Your task to perform on an android device: Open calendar and show me the second week of next month Image 0: 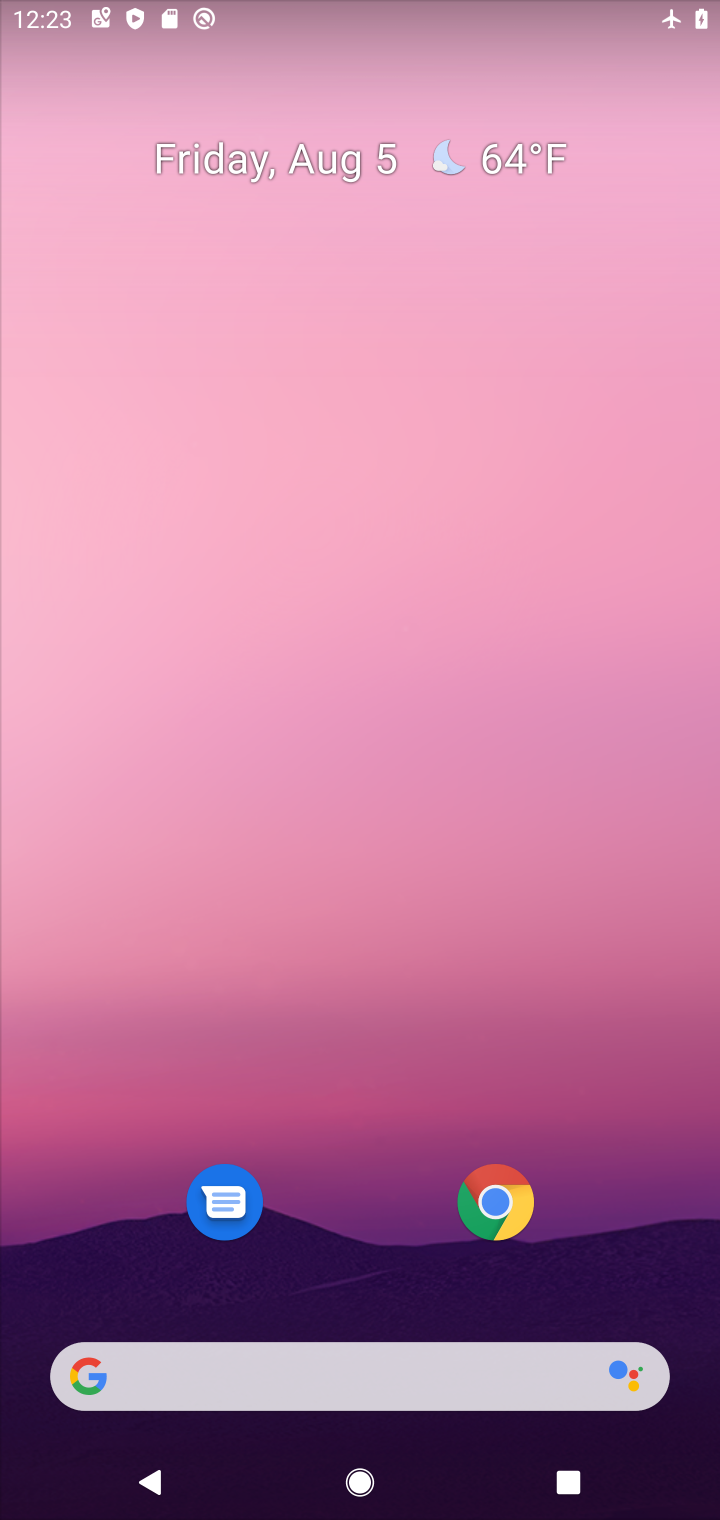
Step 0: drag from (299, 1219) to (322, 162)
Your task to perform on an android device: Open calendar and show me the second week of next month Image 1: 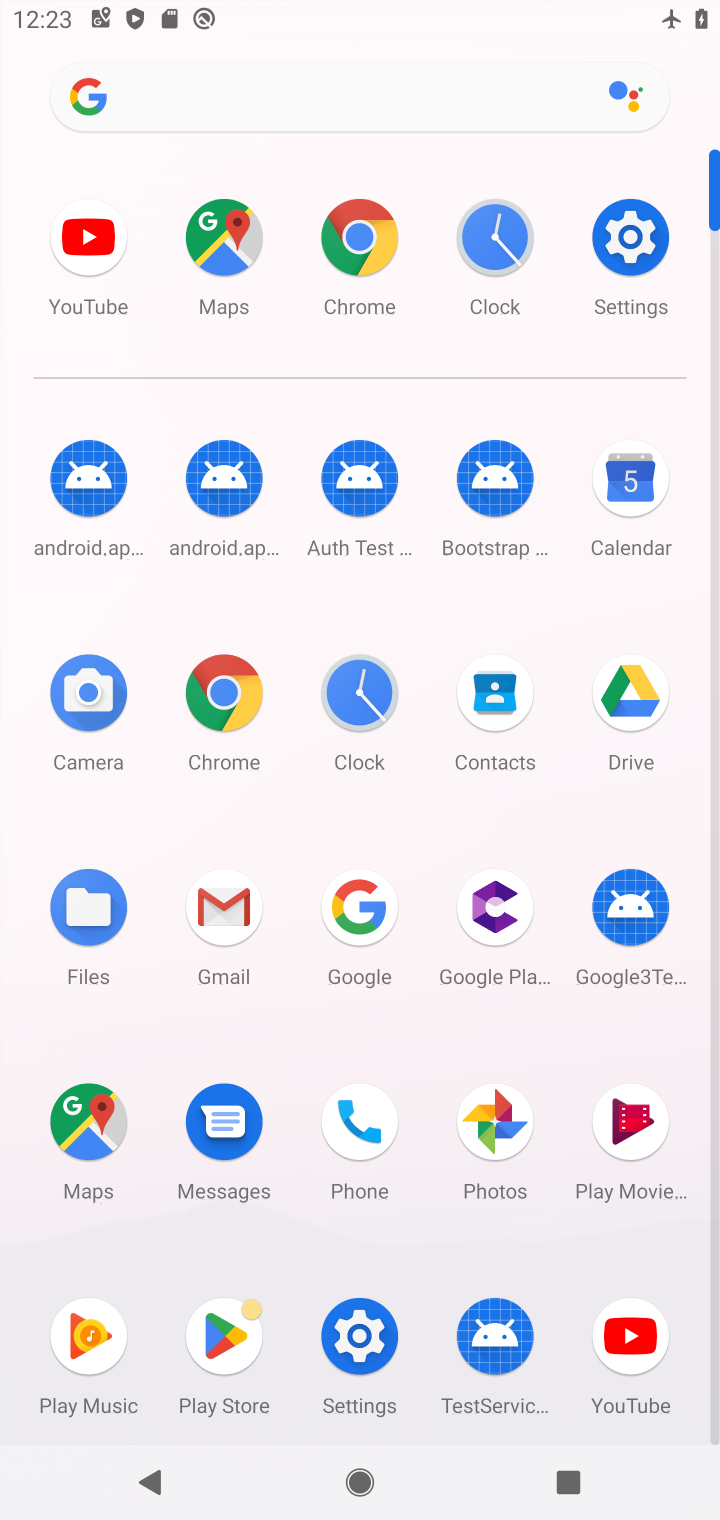
Step 1: click (625, 498)
Your task to perform on an android device: Open calendar and show me the second week of next month Image 2: 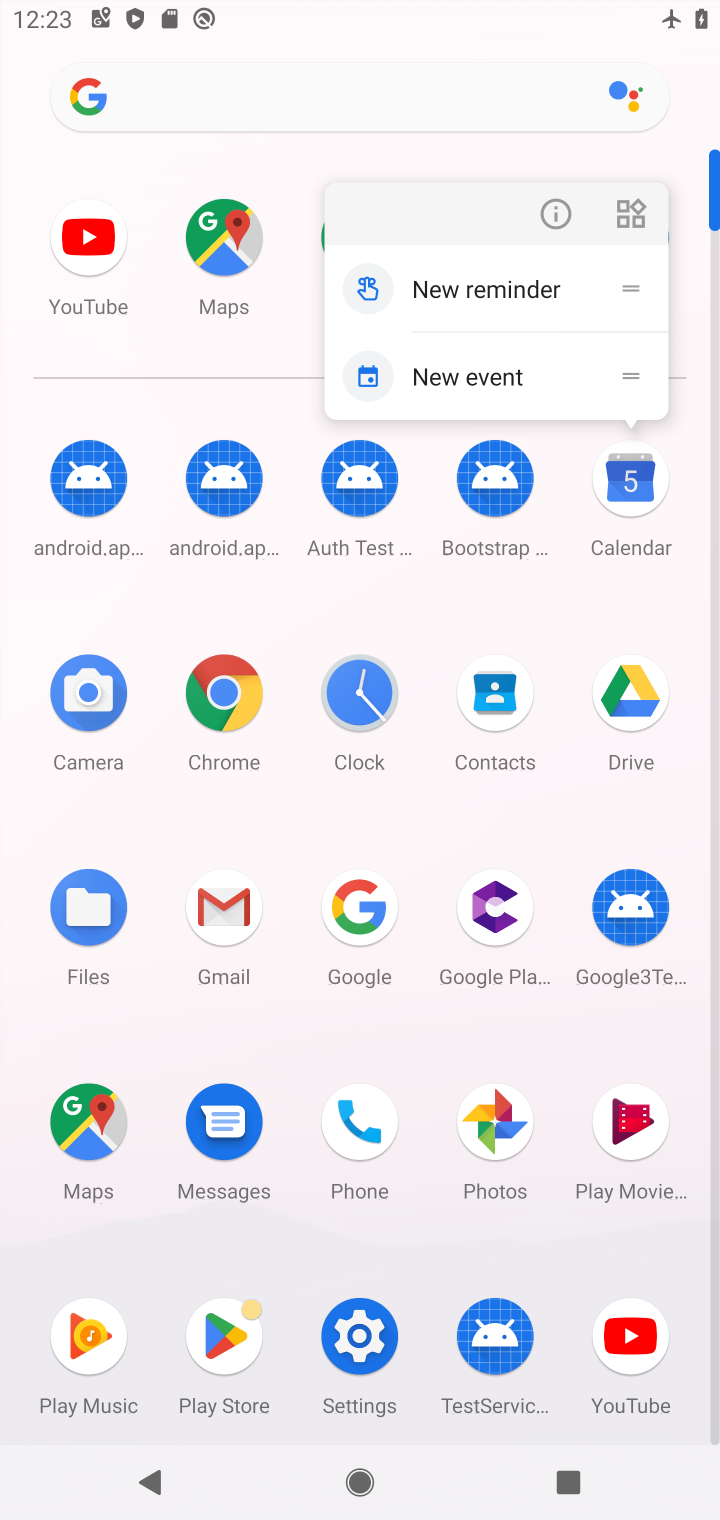
Step 2: click (631, 485)
Your task to perform on an android device: Open calendar and show me the second week of next month Image 3: 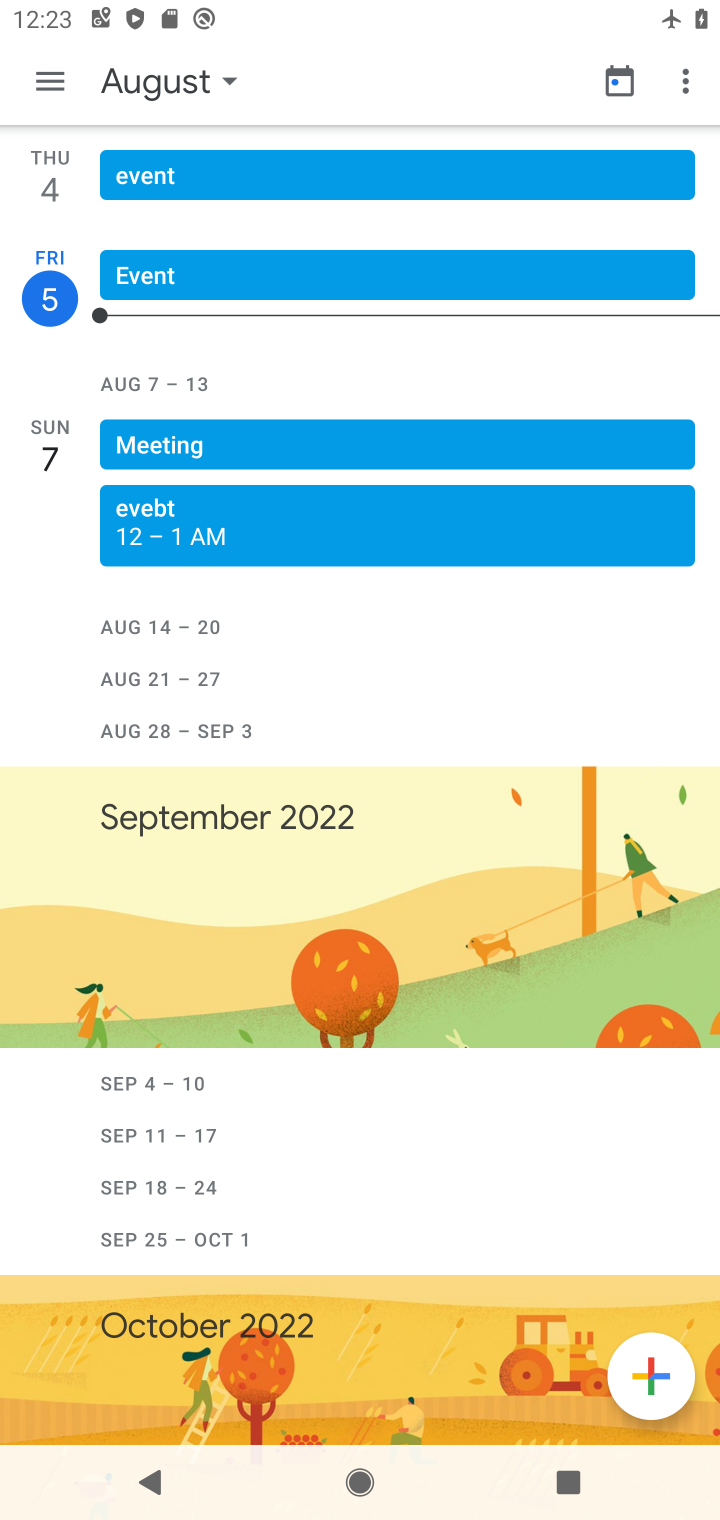
Step 3: click (176, 76)
Your task to perform on an android device: Open calendar and show me the second week of next month Image 4: 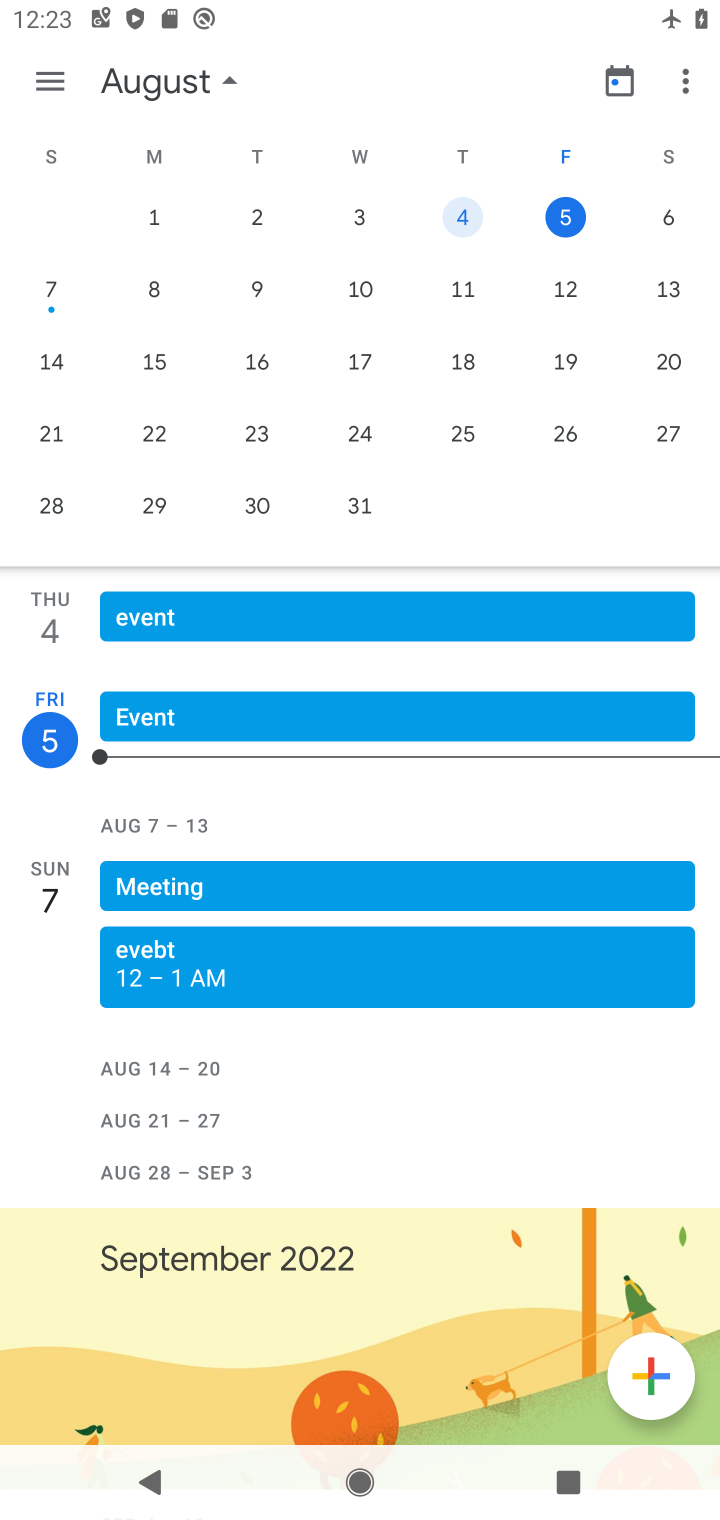
Step 4: drag from (672, 350) to (37, 367)
Your task to perform on an android device: Open calendar and show me the second week of next month Image 5: 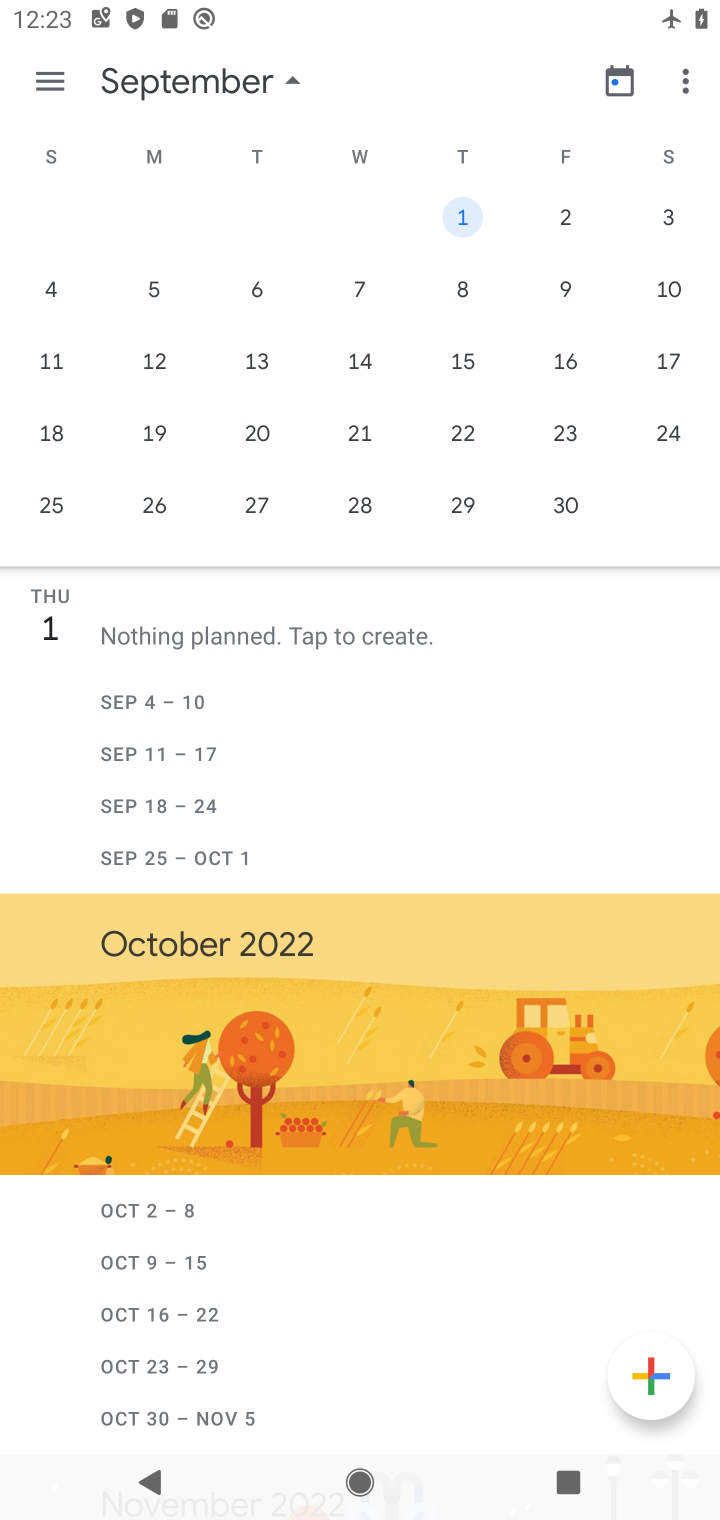
Step 5: click (149, 309)
Your task to perform on an android device: Open calendar and show me the second week of next month Image 6: 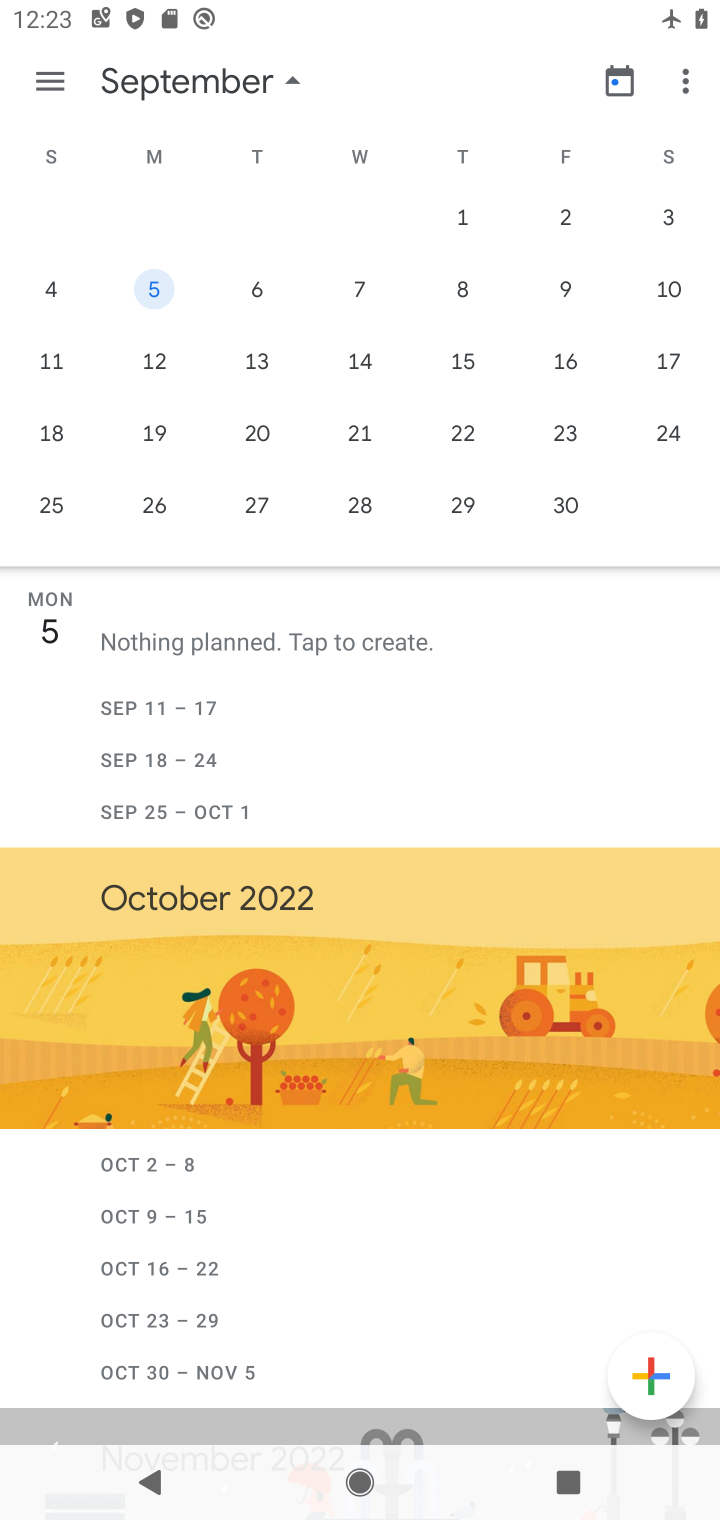
Step 6: task complete